Your task to perform on an android device: What's on my calendar today? Image 0: 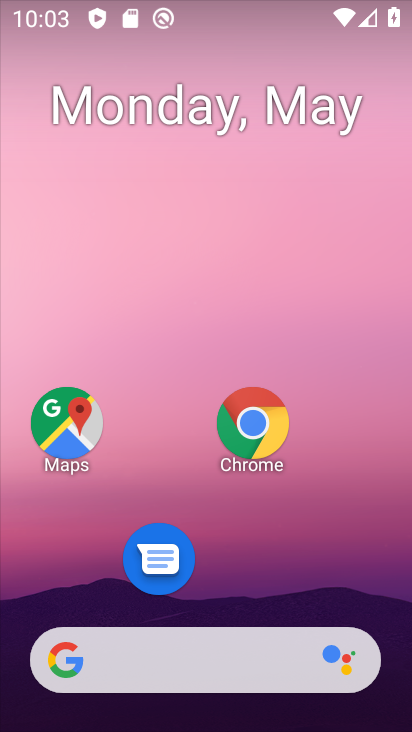
Step 0: click (243, 114)
Your task to perform on an android device: What's on my calendar today? Image 1: 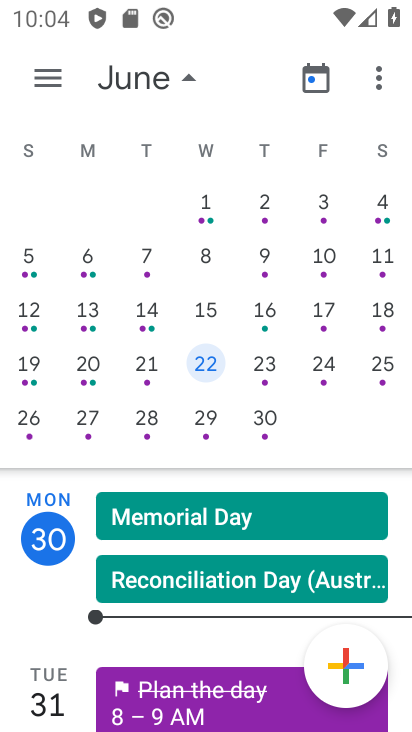
Step 1: task complete